Your task to perform on an android device: Open location settings Image 0: 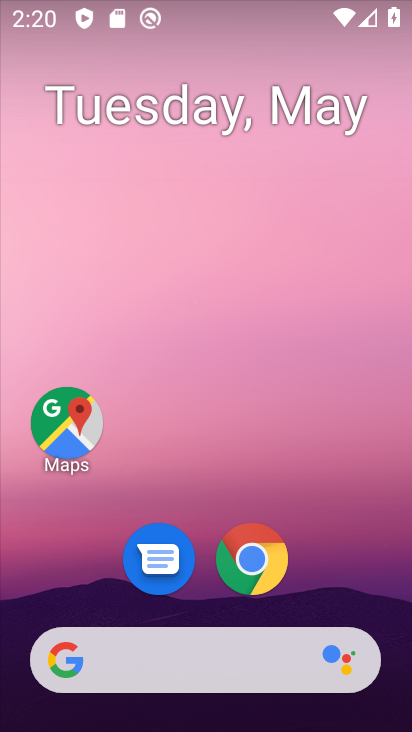
Step 0: drag from (206, 594) to (211, 112)
Your task to perform on an android device: Open location settings Image 1: 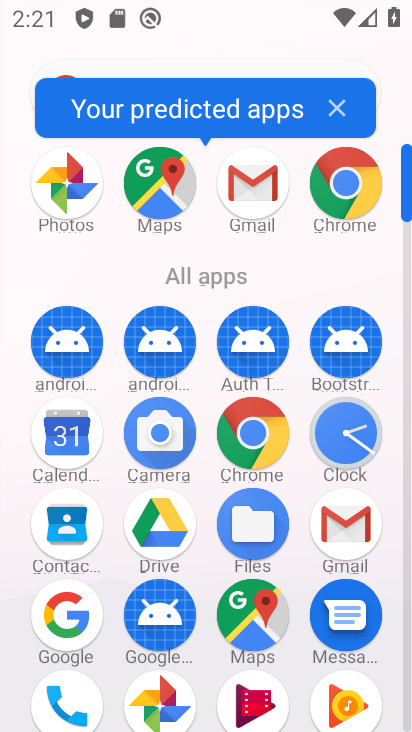
Step 1: drag from (185, 583) to (239, 196)
Your task to perform on an android device: Open location settings Image 2: 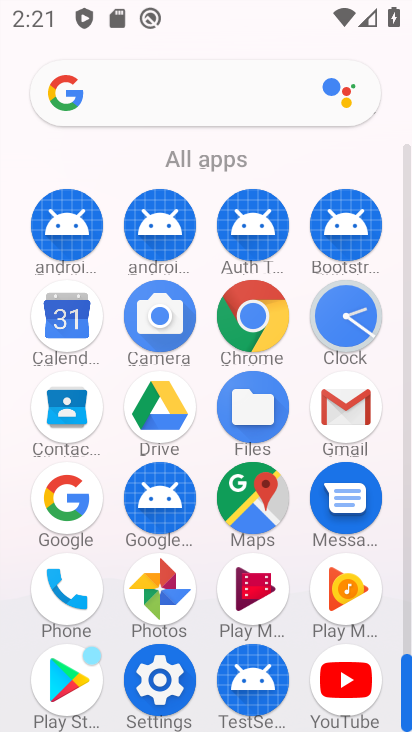
Step 2: click (170, 654)
Your task to perform on an android device: Open location settings Image 3: 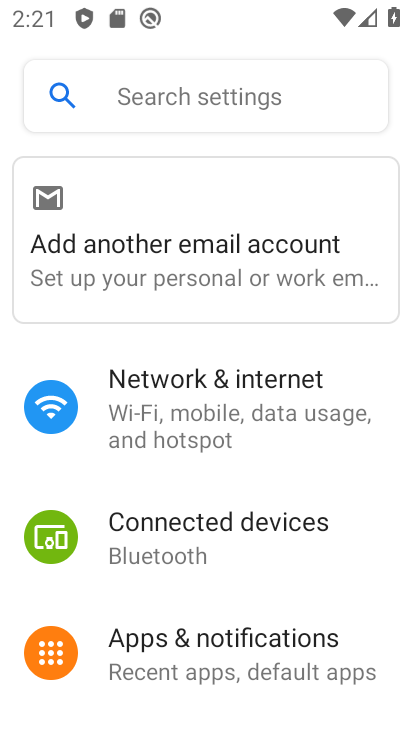
Step 3: drag from (153, 637) to (172, 282)
Your task to perform on an android device: Open location settings Image 4: 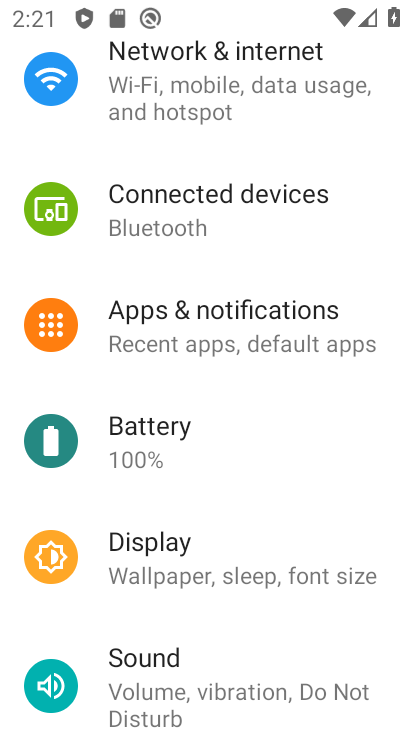
Step 4: drag from (180, 682) to (215, 360)
Your task to perform on an android device: Open location settings Image 5: 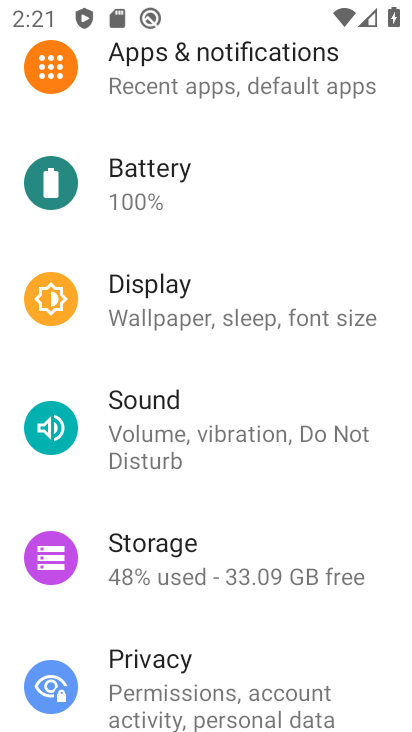
Step 5: drag from (176, 526) to (188, 309)
Your task to perform on an android device: Open location settings Image 6: 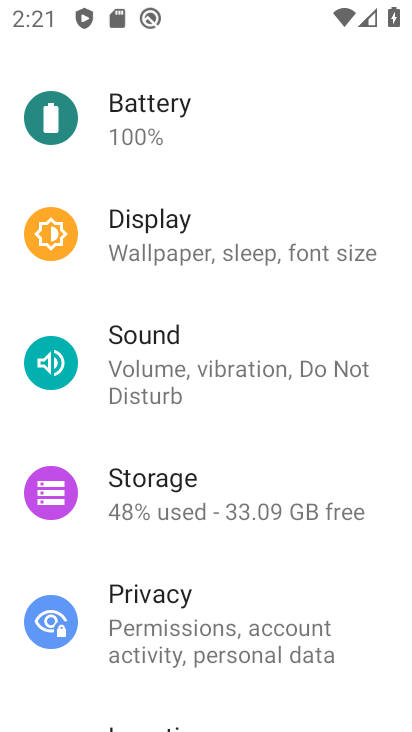
Step 6: drag from (200, 636) to (207, 372)
Your task to perform on an android device: Open location settings Image 7: 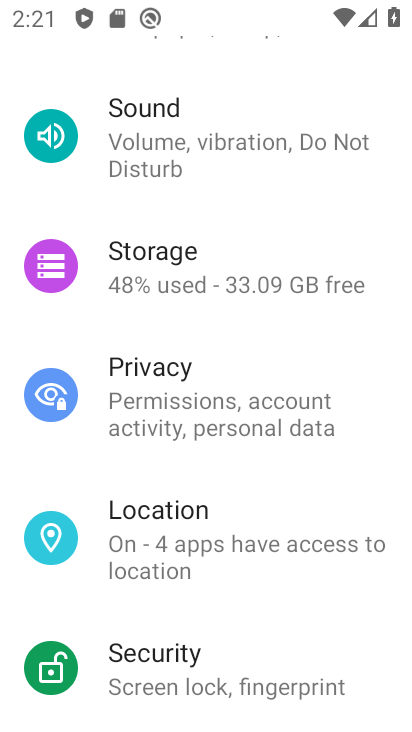
Step 7: click (172, 536)
Your task to perform on an android device: Open location settings Image 8: 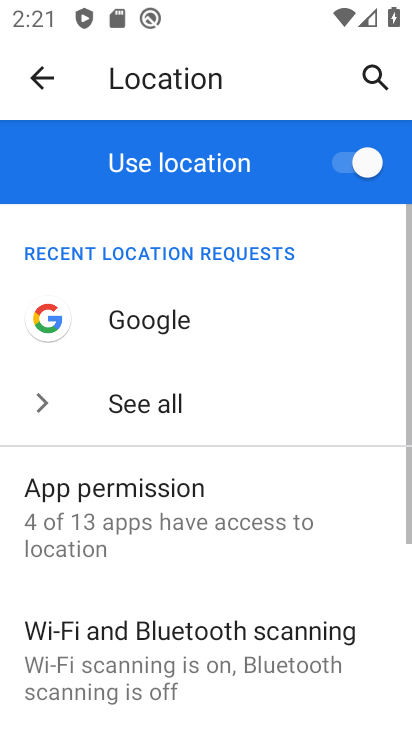
Step 8: task complete